Your task to perform on an android device: Search for flights from Tokyo to Mexico city Image 0: 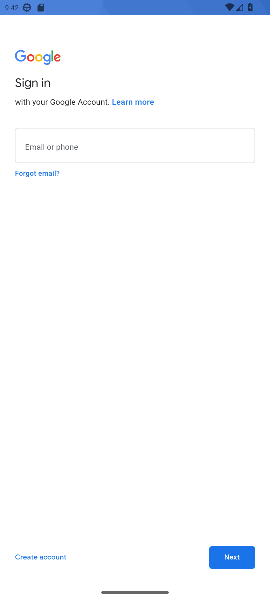
Step 0: press home button
Your task to perform on an android device: Search for flights from Tokyo to Mexico city Image 1: 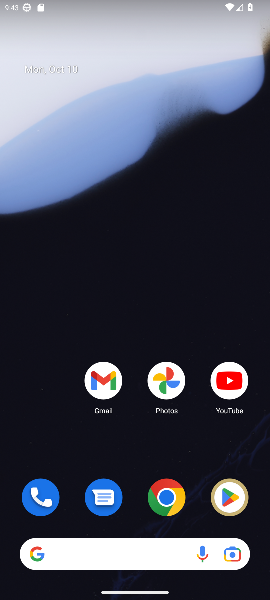
Step 1: drag from (110, 492) to (108, 247)
Your task to perform on an android device: Search for flights from Tokyo to Mexico city Image 2: 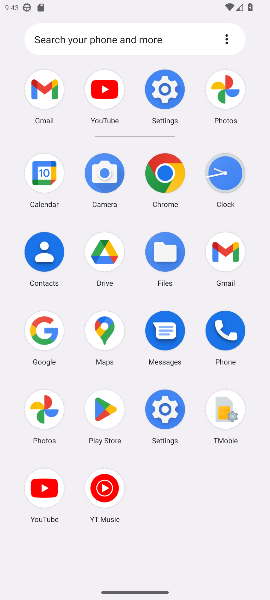
Step 2: click (44, 327)
Your task to perform on an android device: Search for flights from Tokyo to Mexico city Image 3: 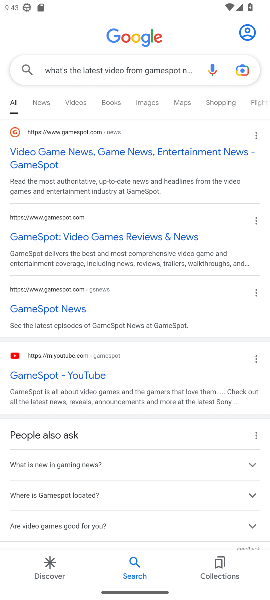
Step 3: click (103, 66)
Your task to perform on an android device: Search for flights from Tokyo to Mexico city Image 4: 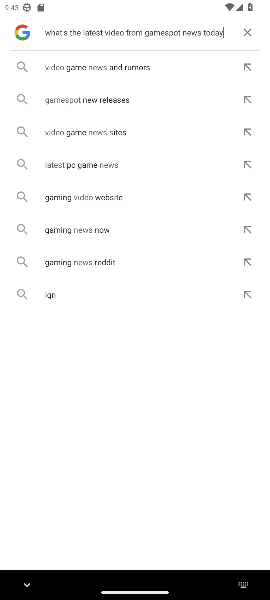
Step 4: click (242, 34)
Your task to perform on an android device: Search for flights from Tokyo to Mexico city Image 5: 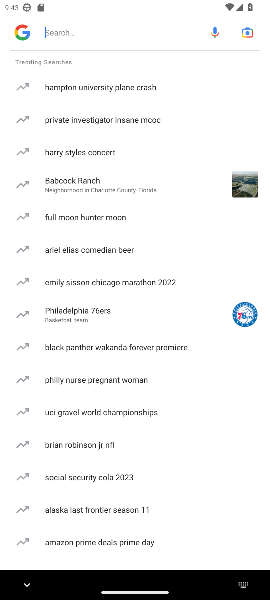
Step 5: click (107, 16)
Your task to perform on an android device: Search for flights from Tokyo to Mexico city Image 6: 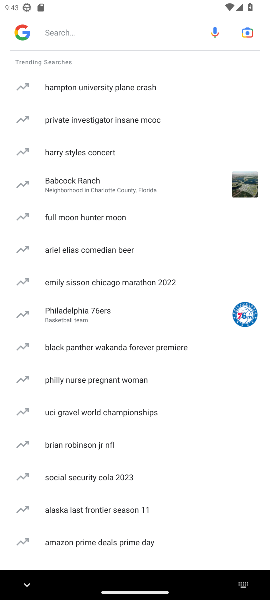
Step 6: type "Search for flights from Tokyo to Mexico city "
Your task to perform on an android device: Search for flights from Tokyo to Mexico city Image 7: 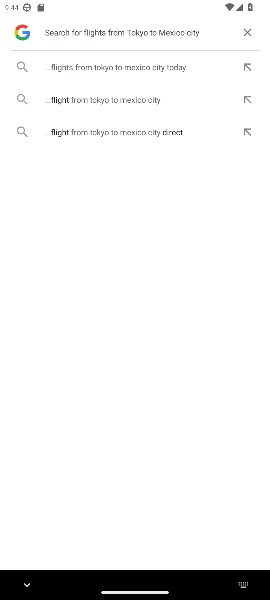
Step 7: click (142, 63)
Your task to perform on an android device: Search for flights from Tokyo to Mexico city Image 8: 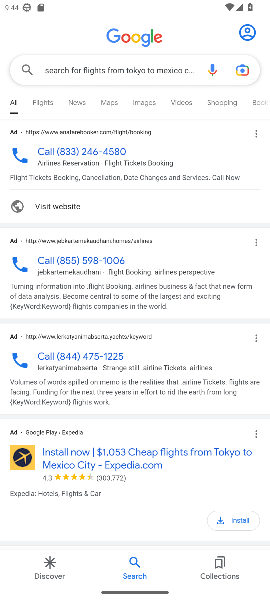
Step 8: drag from (116, 456) to (122, 249)
Your task to perform on an android device: Search for flights from Tokyo to Mexico city Image 9: 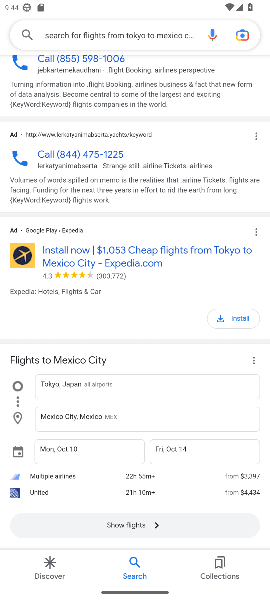
Step 9: click (75, 252)
Your task to perform on an android device: Search for flights from Tokyo to Mexico city Image 10: 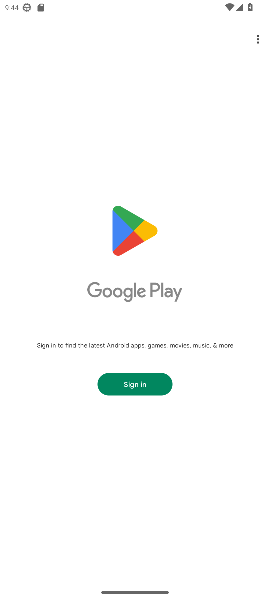
Step 10: press back button
Your task to perform on an android device: Search for flights from Tokyo to Mexico city Image 11: 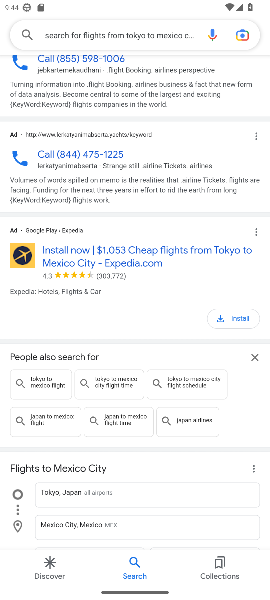
Step 11: drag from (87, 516) to (132, 187)
Your task to perform on an android device: Search for flights from Tokyo to Mexico city Image 12: 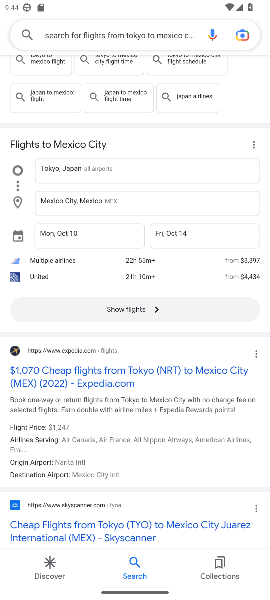
Step 12: click (96, 372)
Your task to perform on an android device: Search for flights from Tokyo to Mexico city Image 13: 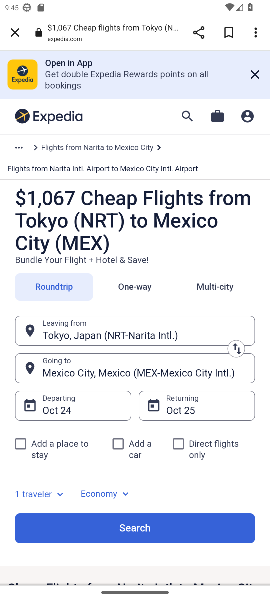
Step 13: task complete